Your task to perform on an android device: turn off translation in the chrome app Image 0: 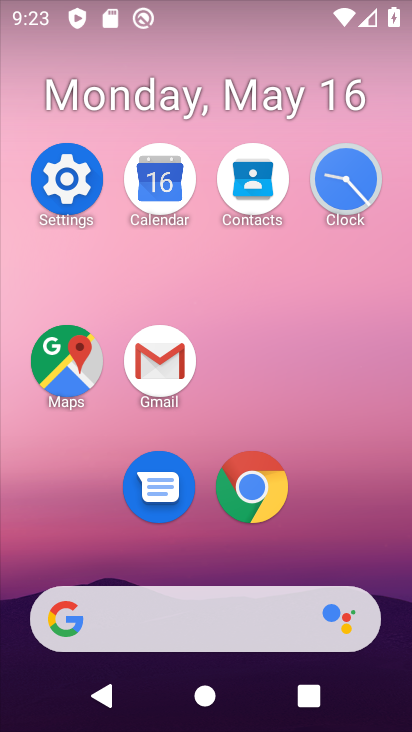
Step 0: click (254, 502)
Your task to perform on an android device: turn off translation in the chrome app Image 1: 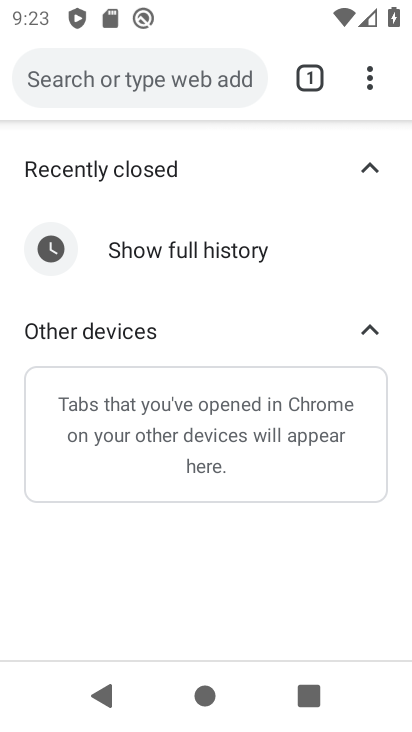
Step 1: click (367, 79)
Your task to perform on an android device: turn off translation in the chrome app Image 2: 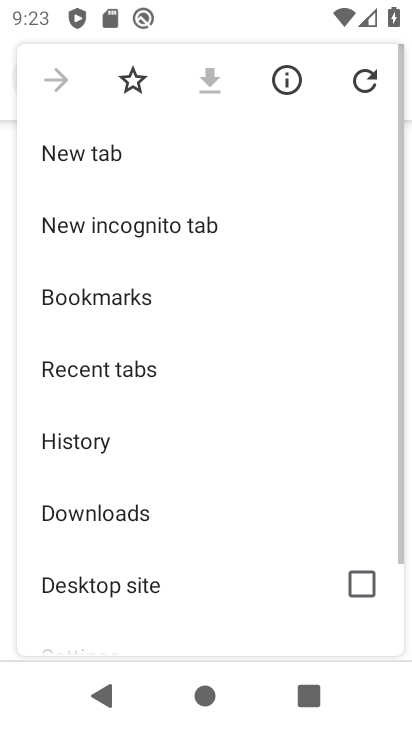
Step 2: drag from (211, 527) to (219, 97)
Your task to perform on an android device: turn off translation in the chrome app Image 3: 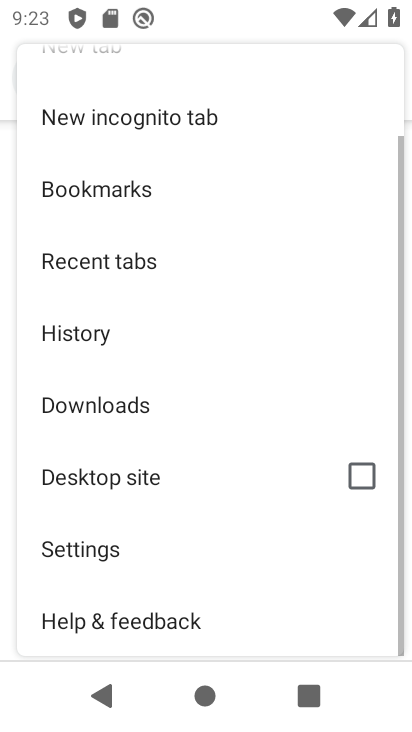
Step 3: click (74, 552)
Your task to perform on an android device: turn off translation in the chrome app Image 4: 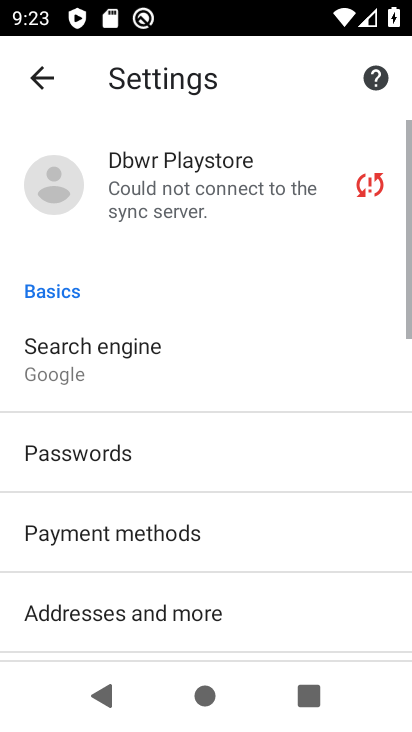
Step 4: drag from (86, 425) to (118, 181)
Your task to perform on an android device: turn off translation in the chrome app Image 5: 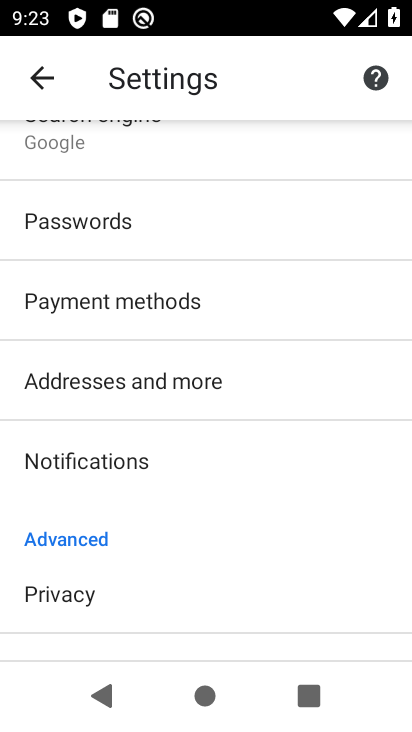
Step 5: drag from (166, 409) to (187, 178)
Your task to perform on an android device: turn off translation in the chrome app Image 6: 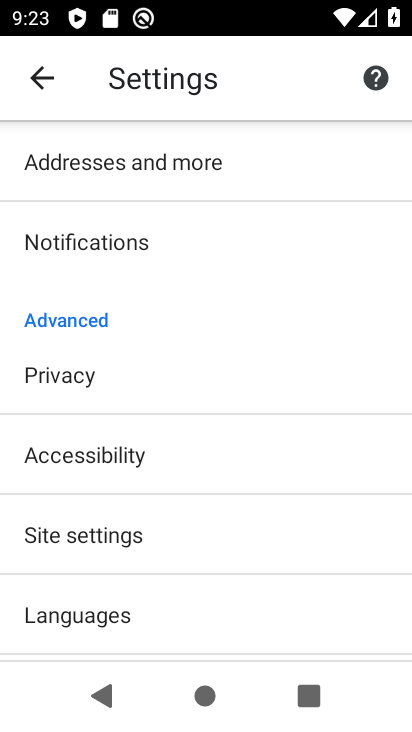
Step 6: drag from (128, 508) to (151, 199)
Your task to perform on an android device: turn off translation in the chrome app Image 7: 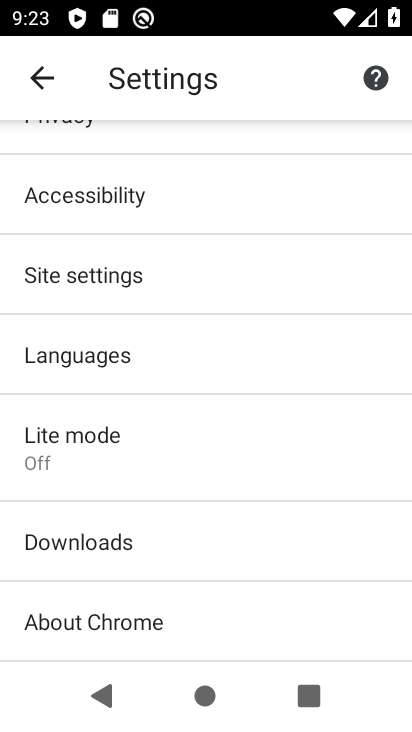
Step 7: click (161, 346)
Your task to perform on an android device: turn off translation in the chrome app Image 8: 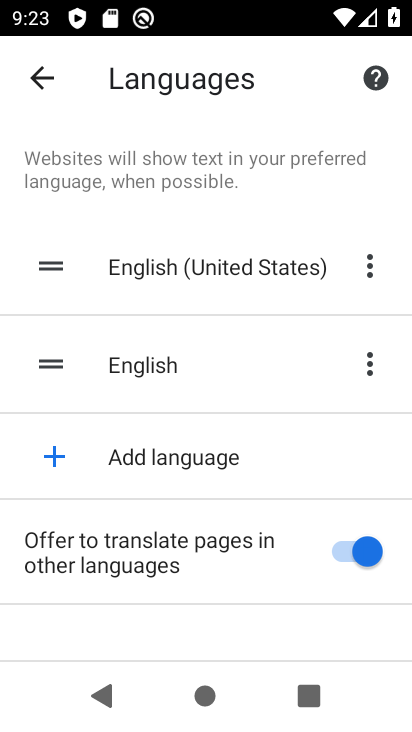
Step 8: click (367, 551)
Your task to perform on an android device: turn off translation in the chrome app Image 9: 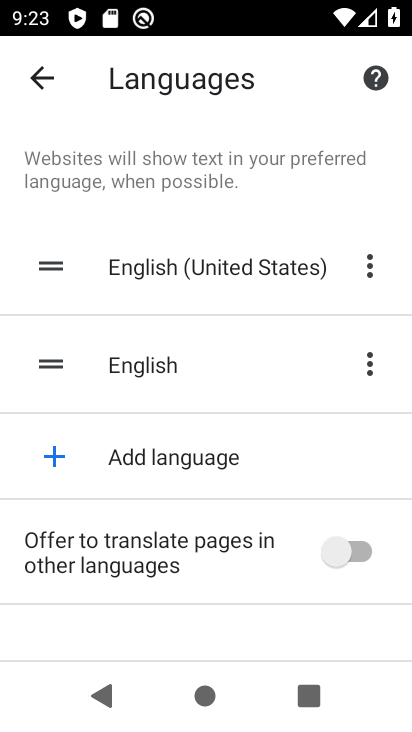
Step 9: task complete